Your task to perform on an android device: delete location history Image 0: 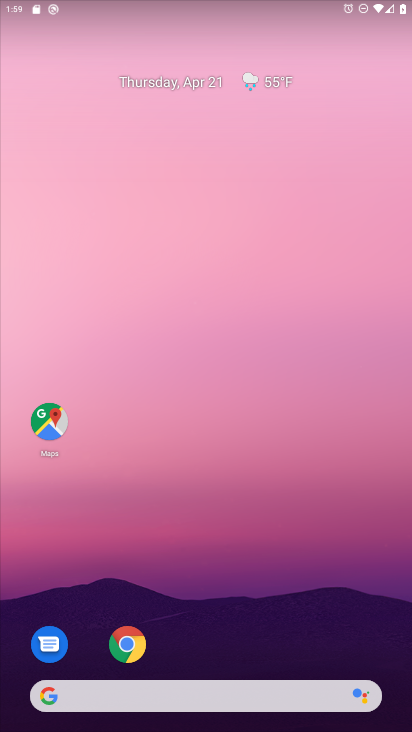
Step 0: drag from (328, 639) to (288, 275)
Your task to perform on an android device: delete location history Image 1: 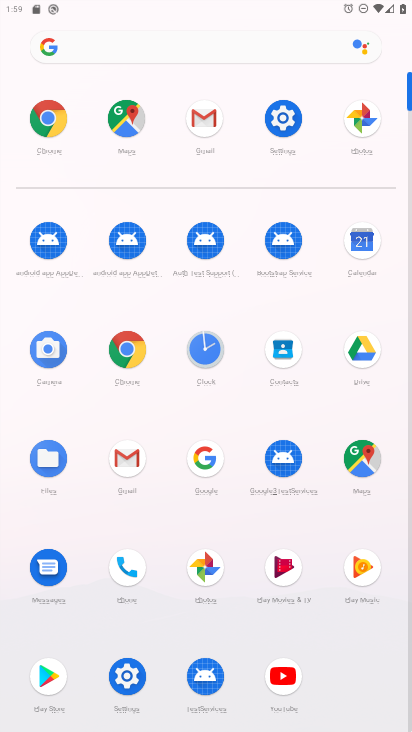
Step 1: click (130, 145)
Your task to perform on an android device: delete location history Image 2: 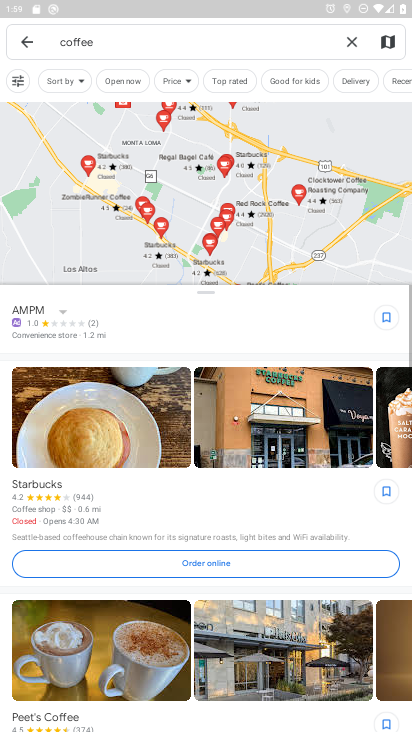
Step 2: click (22, 43)
Your task to perform on an android device: delete location history Image 3: 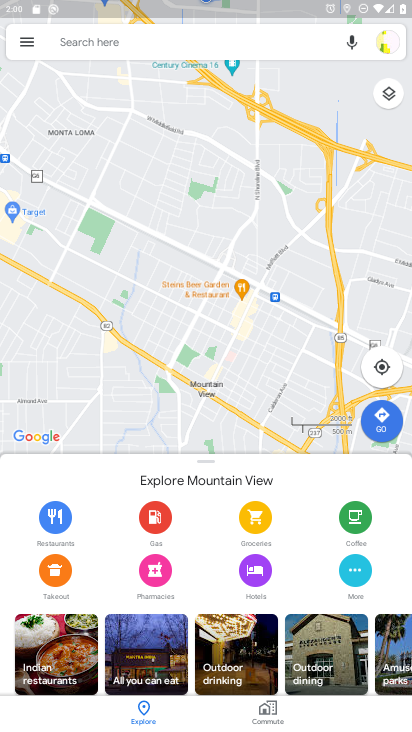
Step 3: click (22, 43)
Your task to perform on an android device: delete location history Image 4: 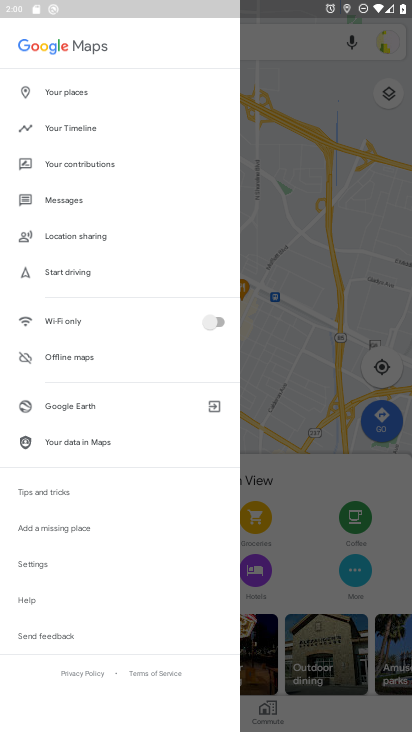
Step 4: click (77, 137)
Your task to perform on an android device: delete location history Image 5: 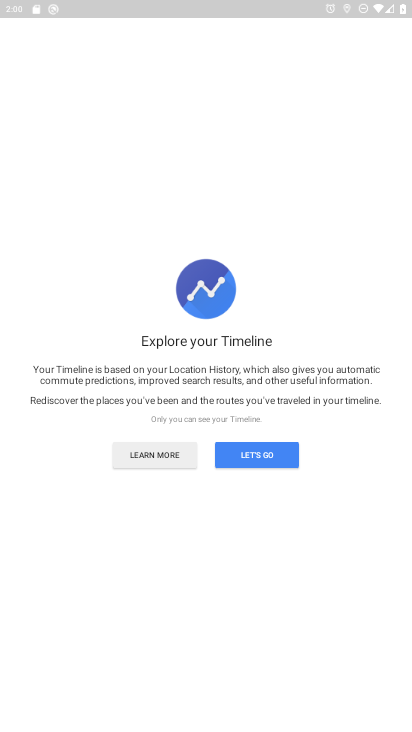
Step 5: click (284, 449)
Your task to perform on an android device: delete location history Image 6: 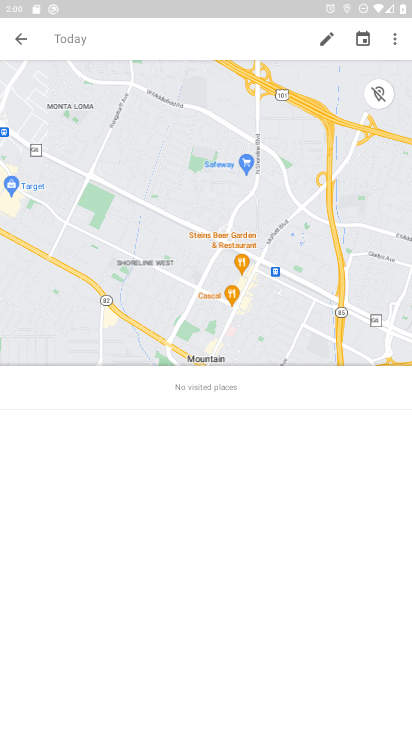
Step 6: click (397, 33)
Your task to perform on an android device: delete location history Image 7: 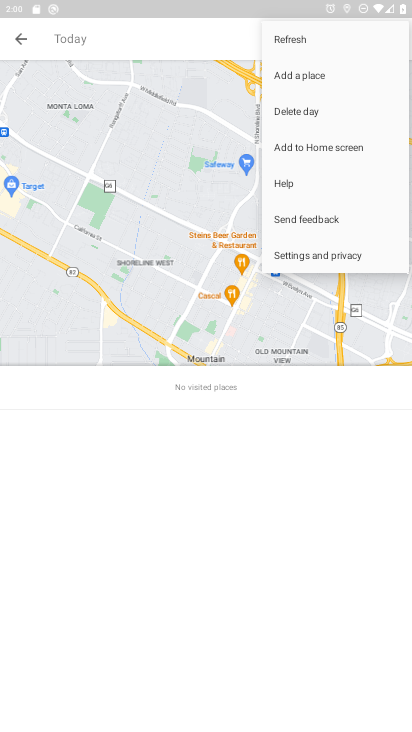
Step 7: click (323, 268)
Your task to perform on an android device: delete location history Image 8: 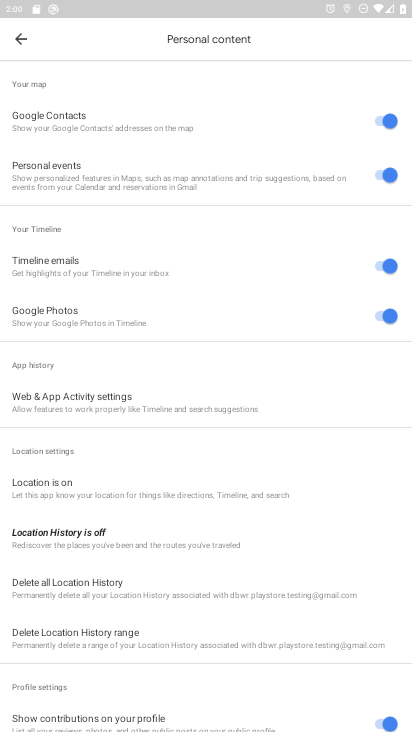
Step 8: click (292, 598)
Your task to perform on an android device: delete location history Image 9: 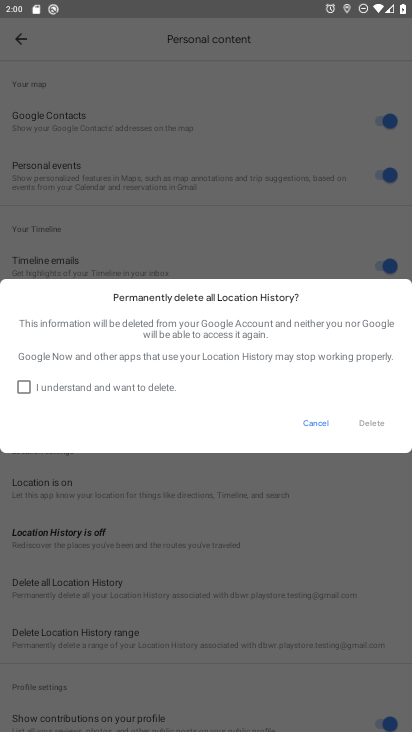
Step 9: click (160, 376)
Your task to perform on an android device: delete location history Image 10: 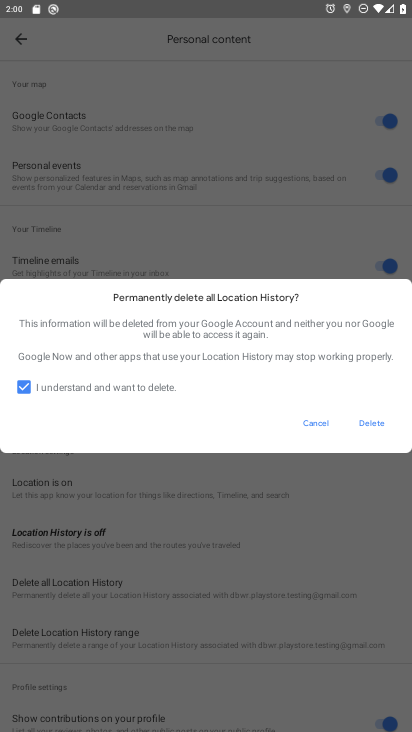
Step 10: click (380, 423)
Your task to perform on an android device: delete location history Image 11: 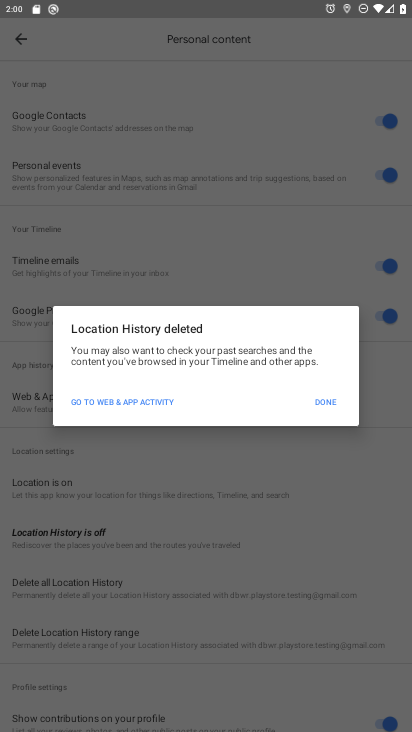
Step 11: click (330, 408)
Your task to perform on an android device: delete location history Image 12: 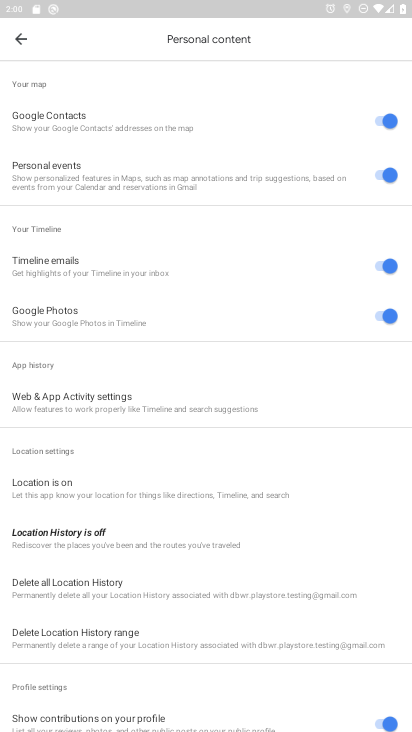
Step 12: task complete